Your task to perform on an android device: turn off wifi Image 0: 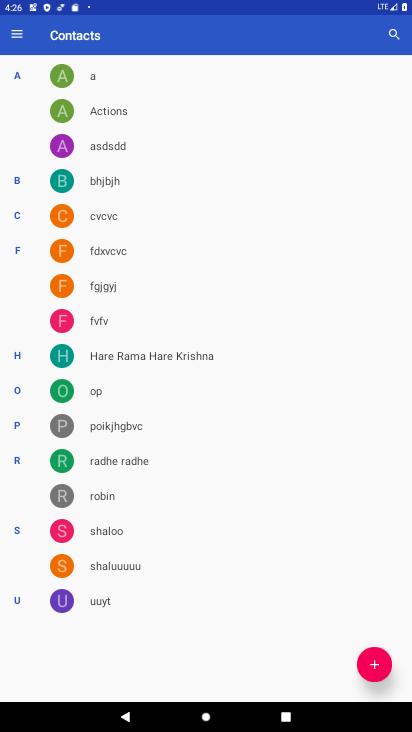
Step 0: click (72, 405)
Your task to perform on an android device: turn off wifi Image 1: 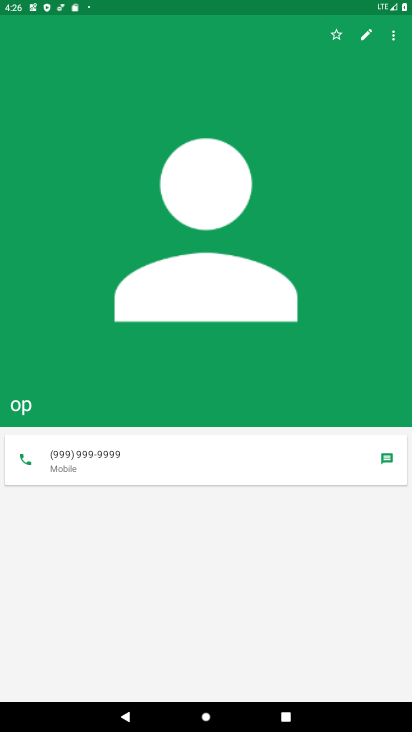
Step 1: press back button
Your task to perform on an android device: turn off wifi Image 2: 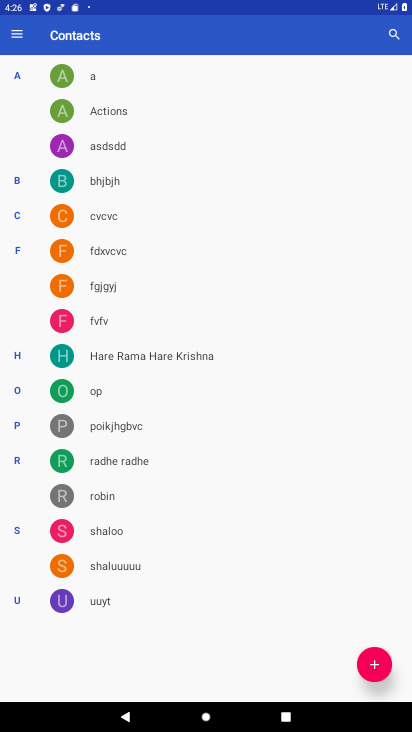
Step 2: press home button
Your task to perform on an android device: turn off wifi Image 3: 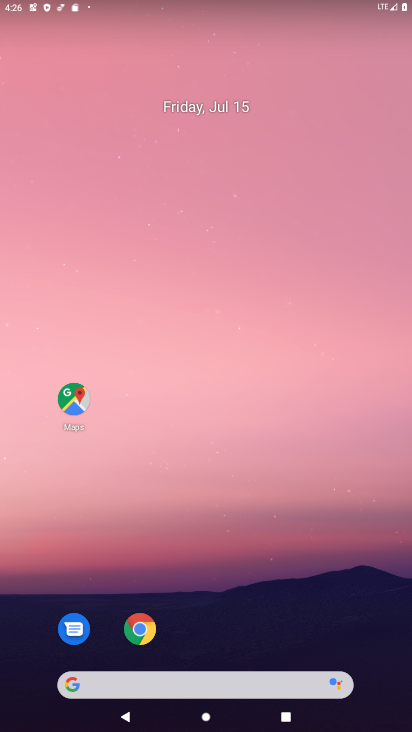
Step 3: drag from (199, 458) to (173, 54)
Your task to perform on an android device: turn off wifi Image 4: 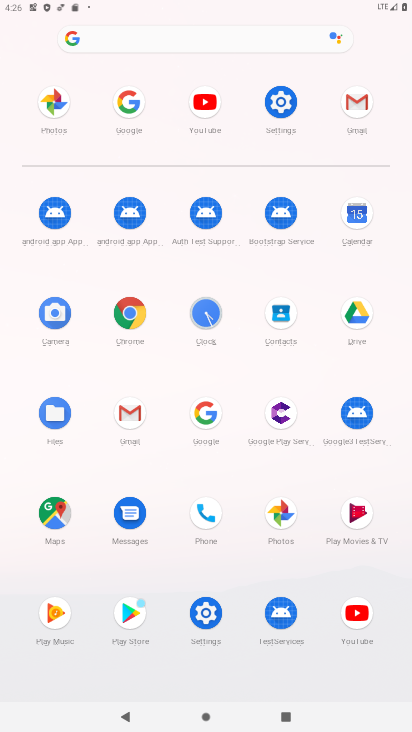
Step 4: click (279, 114)
Your task to perform on an android device: turn off wifi Image 5: 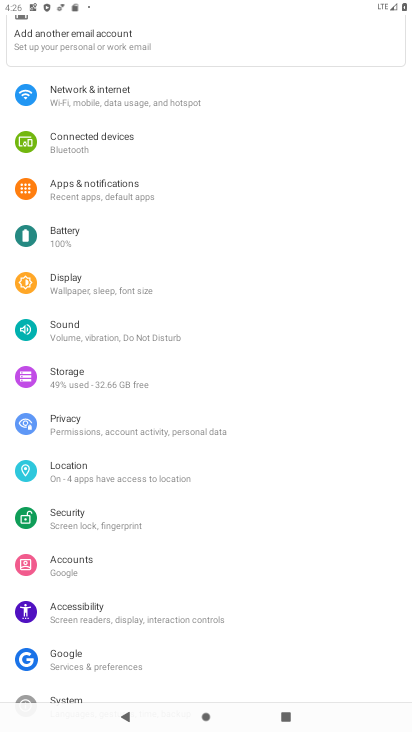
Step 5: click (121, 90)
Your task to perform on an android device: turn off wifi Image 6: 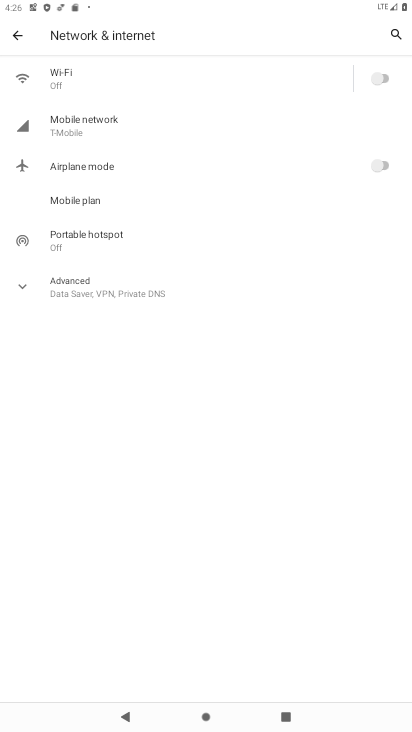
Step 6: task complete